Your task to perform on an android device: turn on the 12-hour format for clock Image 0: 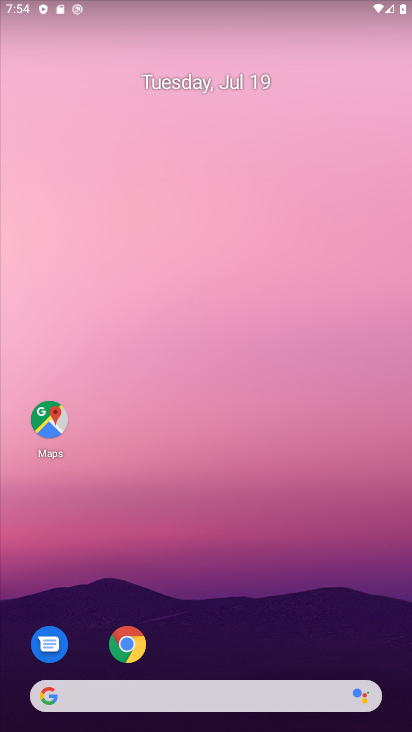
Step 0: drag from (324, 645) to (324, 274)
Your task to perform on an android device: turn on the 12-hour format for clock Image 1: 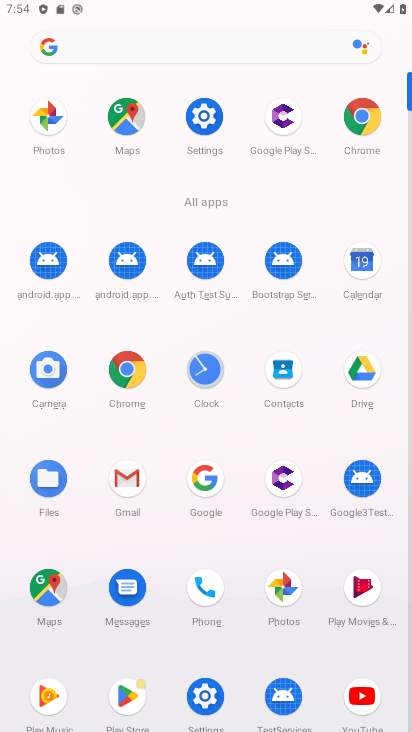
Step 1: click (206, 370)
Your task to perform on an android device: turn on the 12-hour format for clock Image 2: 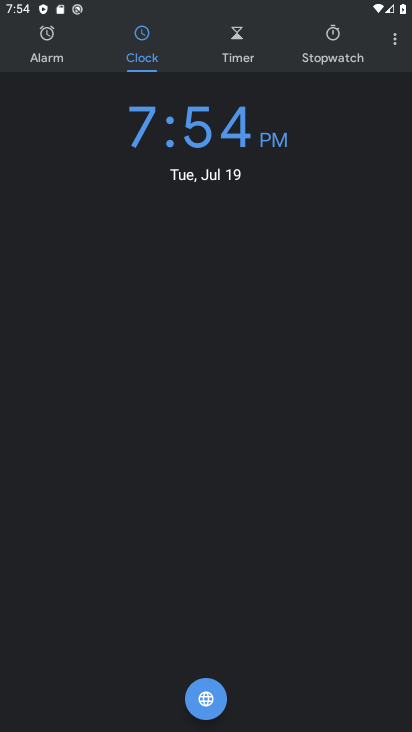
Step 2: click (399, 50)
Your task to perform on an android device: turn on the 12-hour format for clock Image 3: 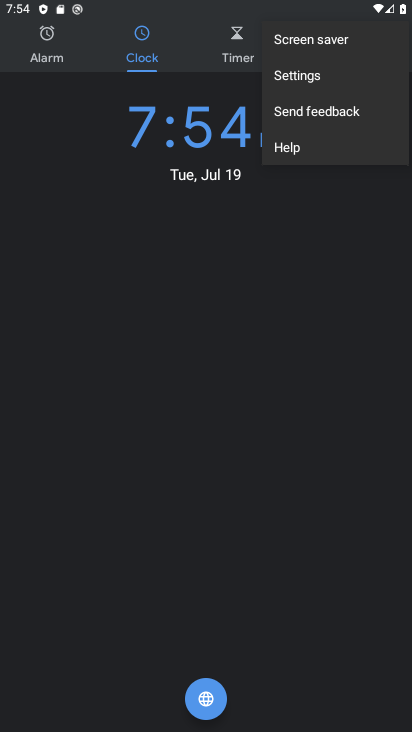
Step 3: click (341, 86)
Your task to perform on an android device: turn on the 12-hour format for clock Image 4: 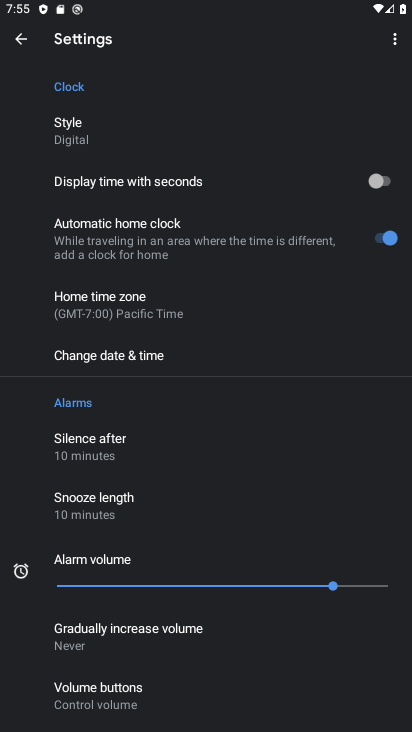
Step 4: click (230, 358)
Your task to perform on an android device: turn on the 12-hour format for clock Image 5: 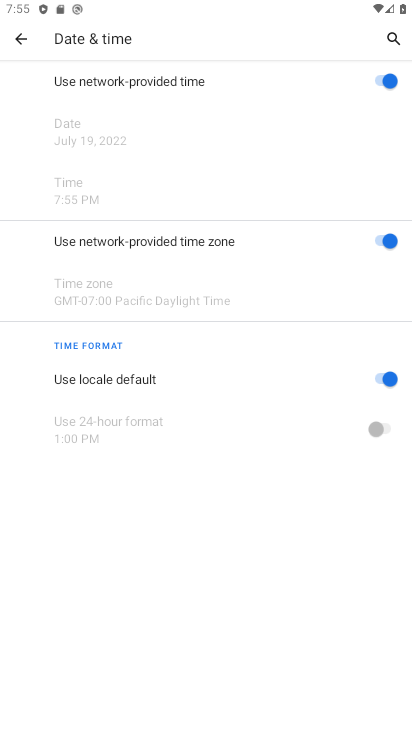
Step 5: task complete